Your task to perform on an android device: Go to CNN.com Image 0: 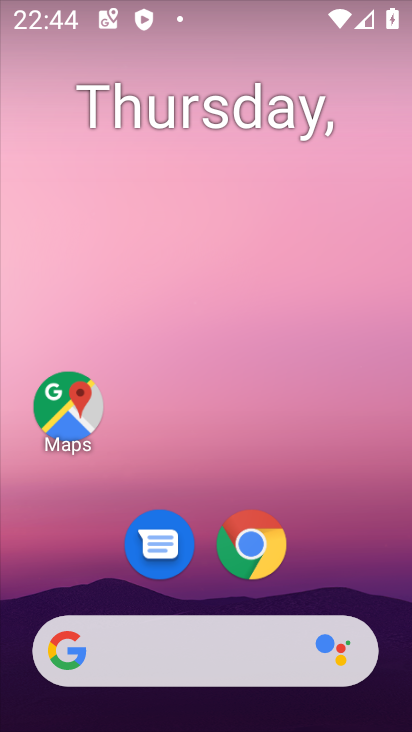
Step 0: drag from (317, 553) to (267, 4)
Your task to perform on an android device: Go to CNN.com Image 1: 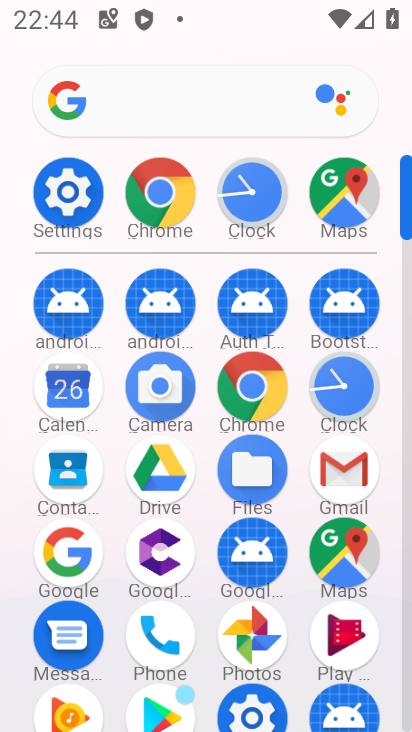
Step 1: drag from (13, 582) to (28, 246)
Your task to perform on an android device: Go to CNN.com Image 2: 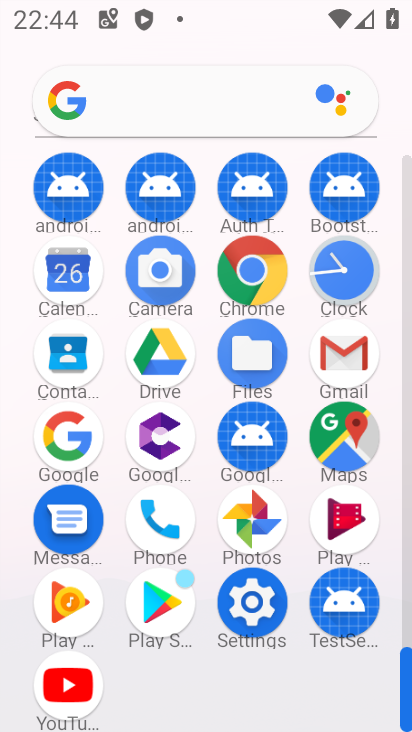
Step 2: click (252, 268)
Your task to perform on an android device: Go to CNN.com Image 3: 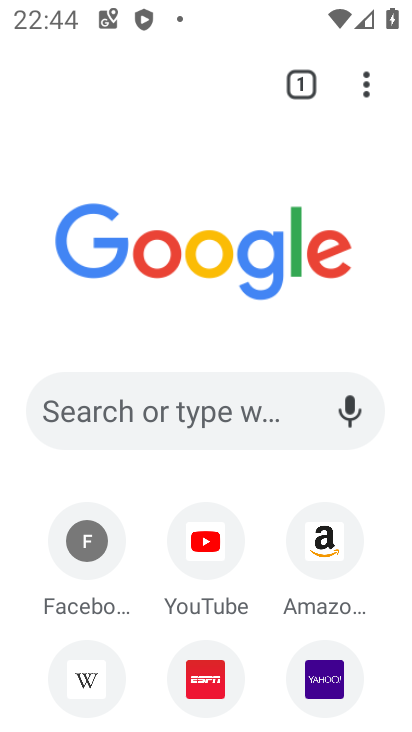
Step 3: click (176, 407)
Your task to perform on an android device: Go to CNN.com Image 4: 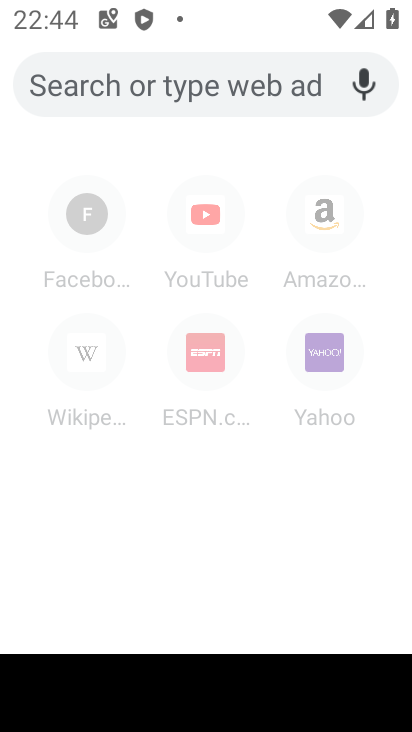
Step 4: click (143, 97)
Your task to perform on an android device: Go to CNN.com Image 5: 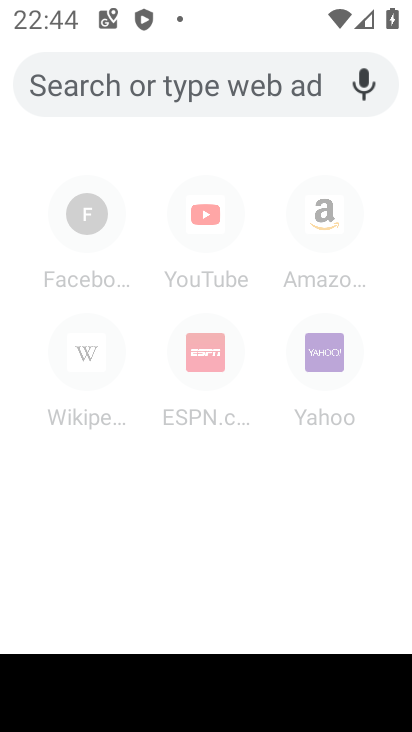
Step 5: type "pizza restaurants"
Your task to perform on an android device: Go to CNN.com Image 6: 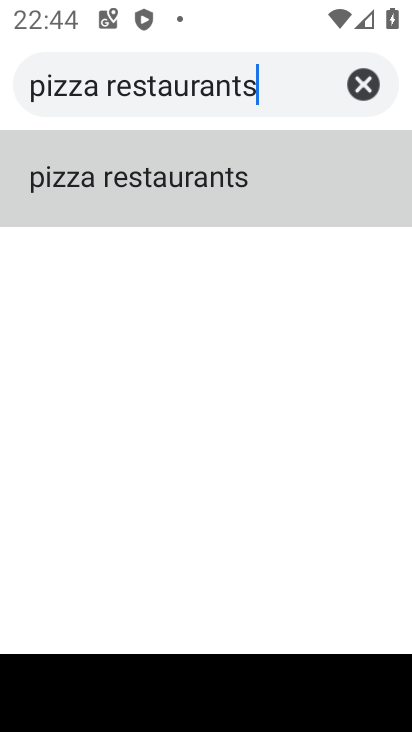
Step 6: type ""
Your task to perform on an android device: Go to CNN.com Image 7: 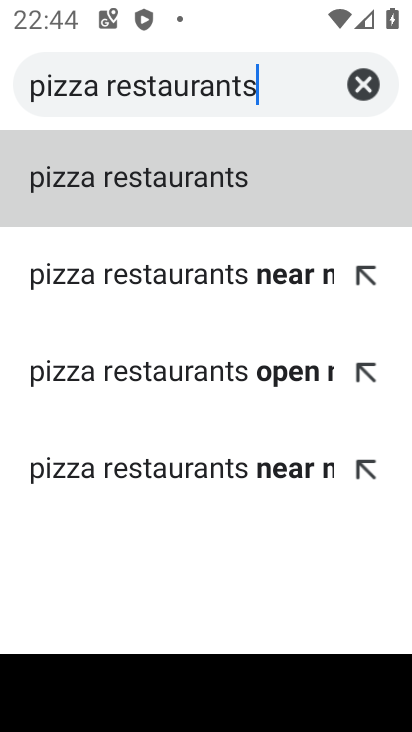
Step 7: click (361, 77)
Your task to perform on an android device: Go to CNN.com Image 8: 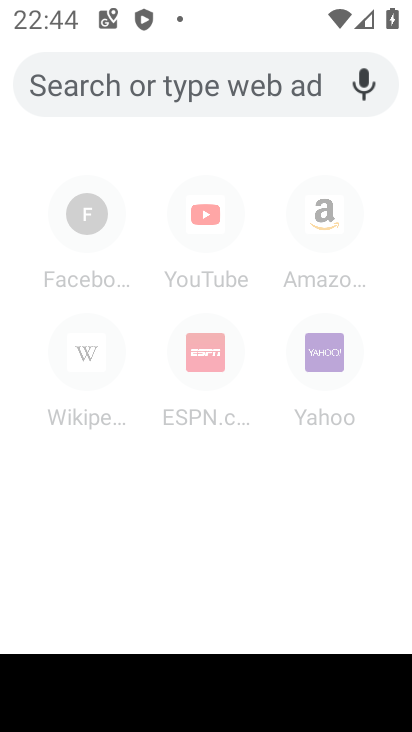
Step 8: type "CNN.com"
Your task to perform on an android device: Go to CNN.com Image 9: 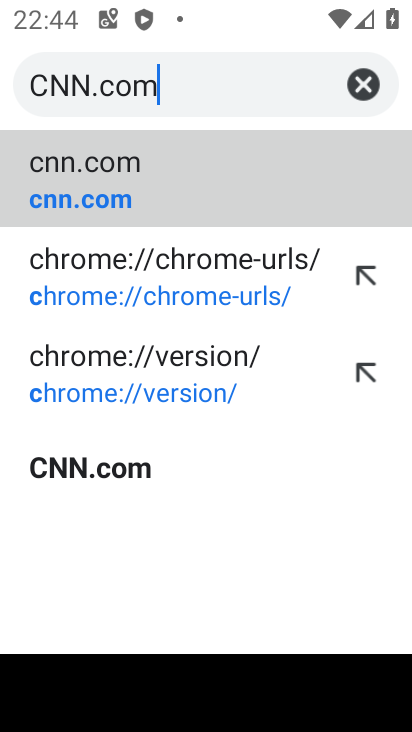
Step 9: type ""
Your task to perform on an android device: Go to CNN.com Image 10: 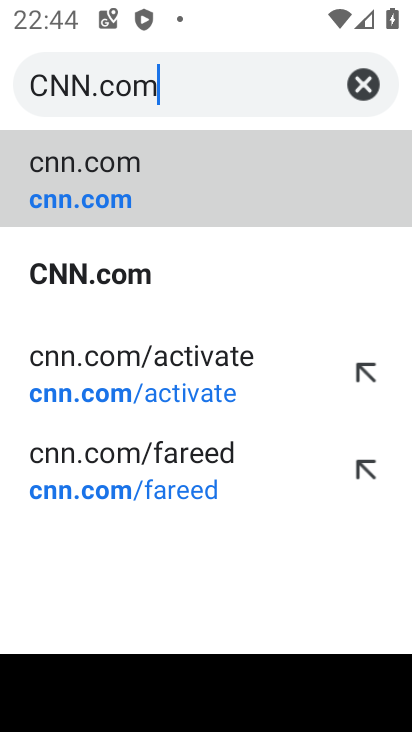
Step 10: click (232, 191)
Your task to perform on an android device: Go to CNN.com Image 11: 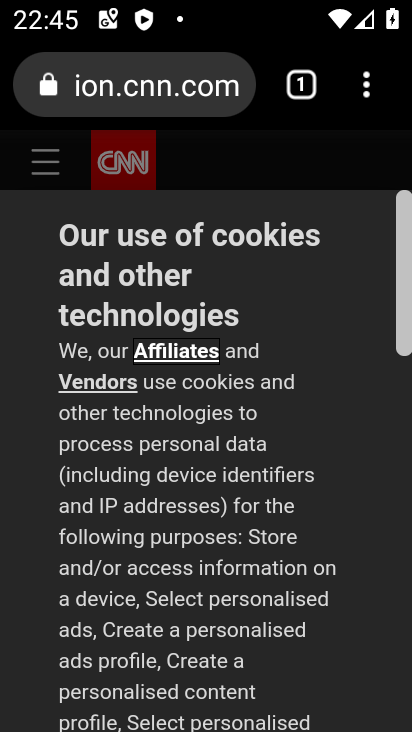
Step 11: task complete